Your task to perform on an android device: What's the weather? Image 0: 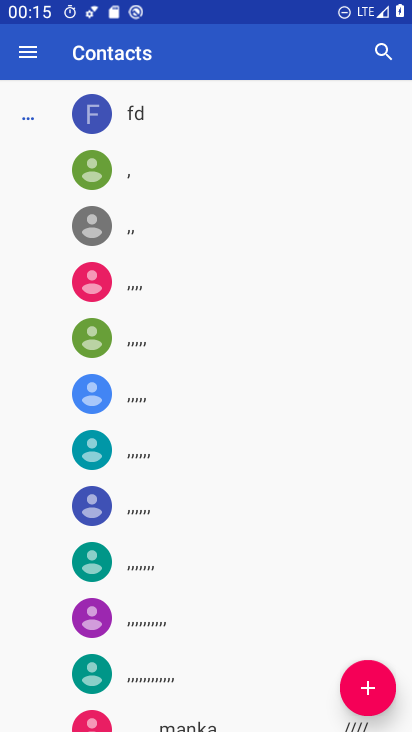
Step 0: press home button
Your task to perform on an android device: What's the weather? Image 1: 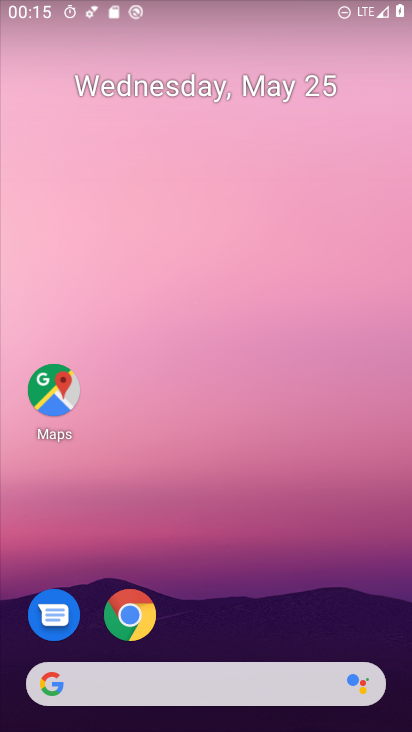
Step 1: drag from (267, 703) to (267, 129)
Your task to perform on an android device: What's the weather? Image 2: 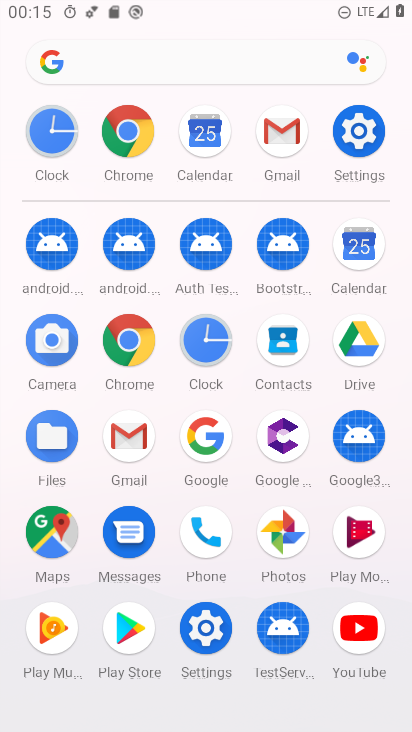
Step 2: click (158, 76)
Your task to perform on an android device: What's the weather? Image 3: 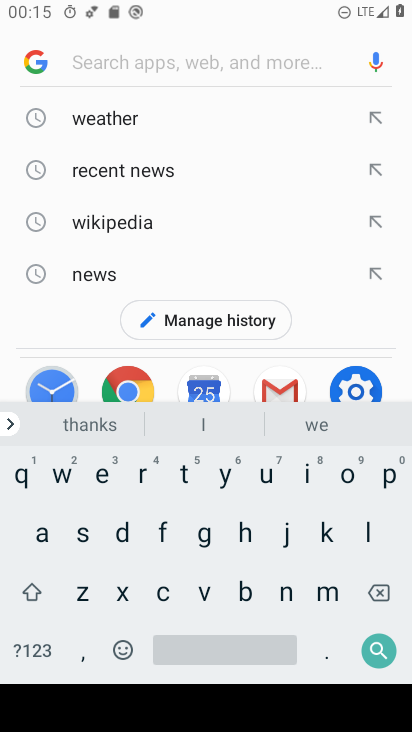
Step 3: click (160, 125)
Your task to perform on an android device: What's the weather? Image 4: 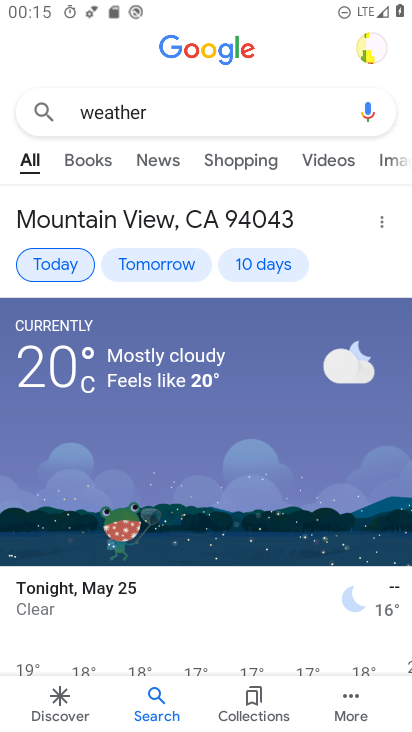
Step 4: task complete